Your task to perform on an android device: open a new tab in the chrome app Image 0: 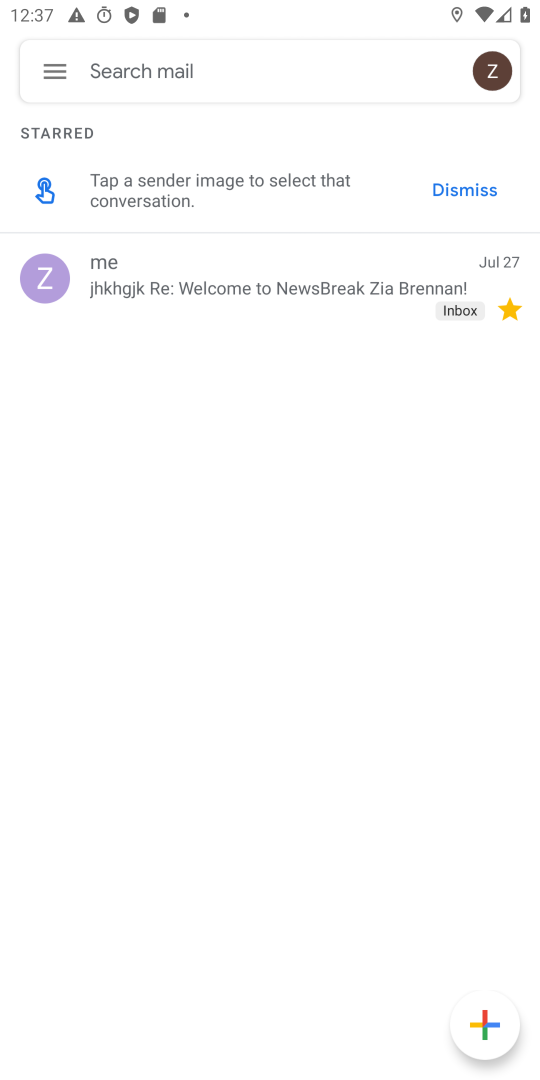
Step 0: press home button
Your task to perform on an android device: open a new tab in the chrome app Image 1: 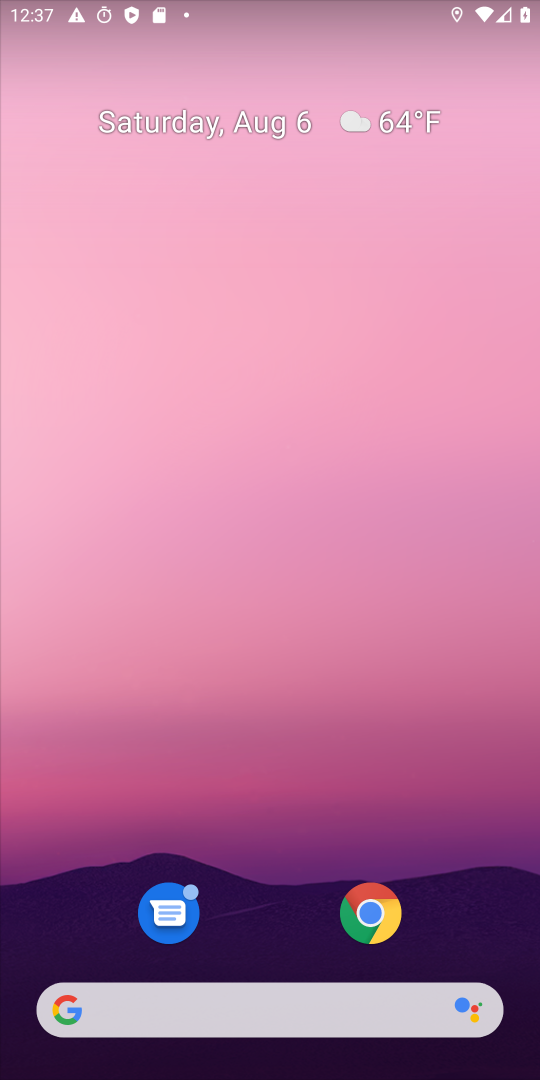
Step 1: drag from (442, 916) to (500, 224)
Your task to perform on an android device: open a new tab in the chrome app Image 2: 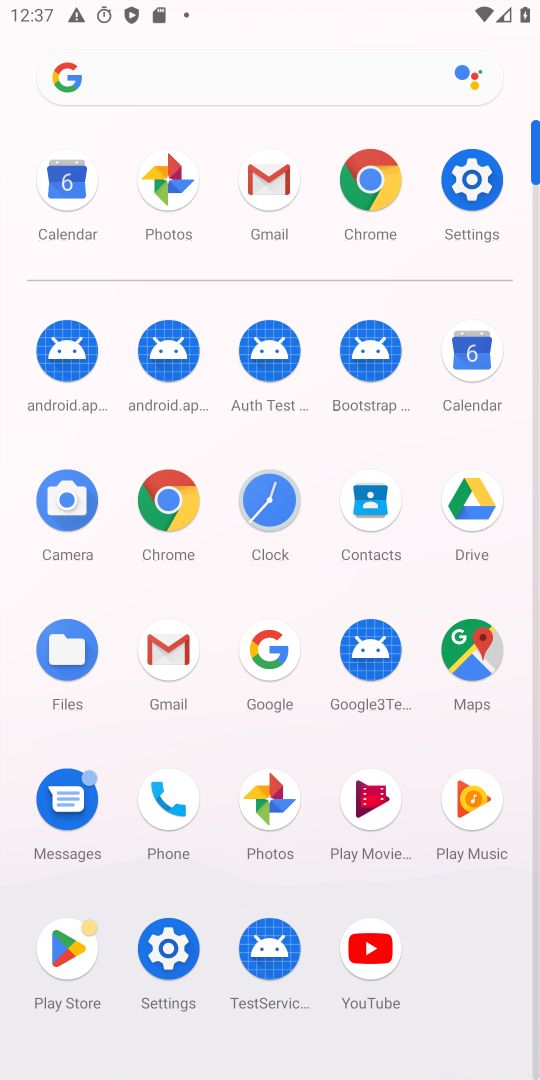
Step 2: click (159, 505)
Your task to perform on an android device: open a new tab in the chrome app Image 3: 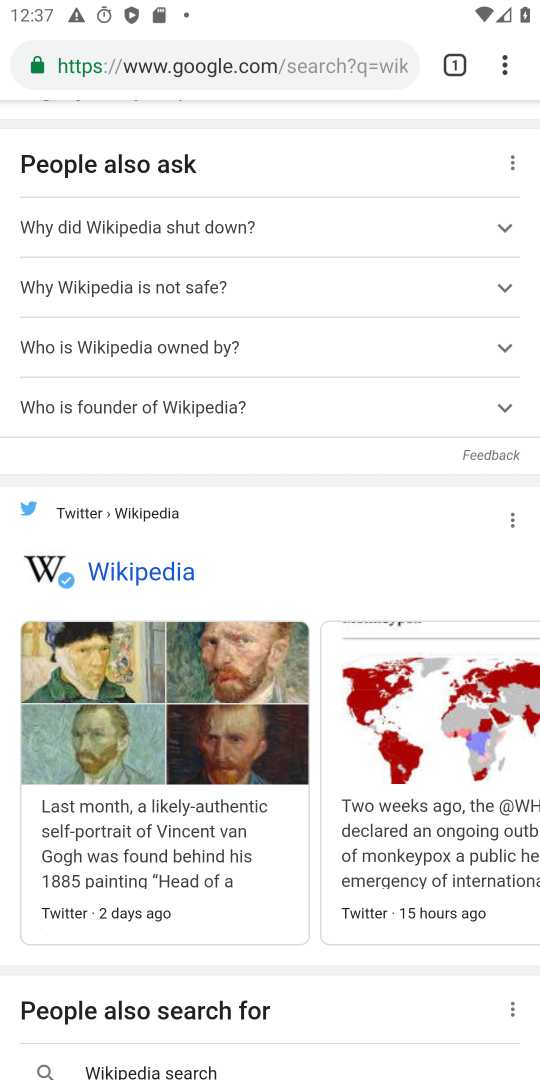
Step 3: click (500, 69)
Your task to perform on an android device: open a new tab in the chrome app Image 4: 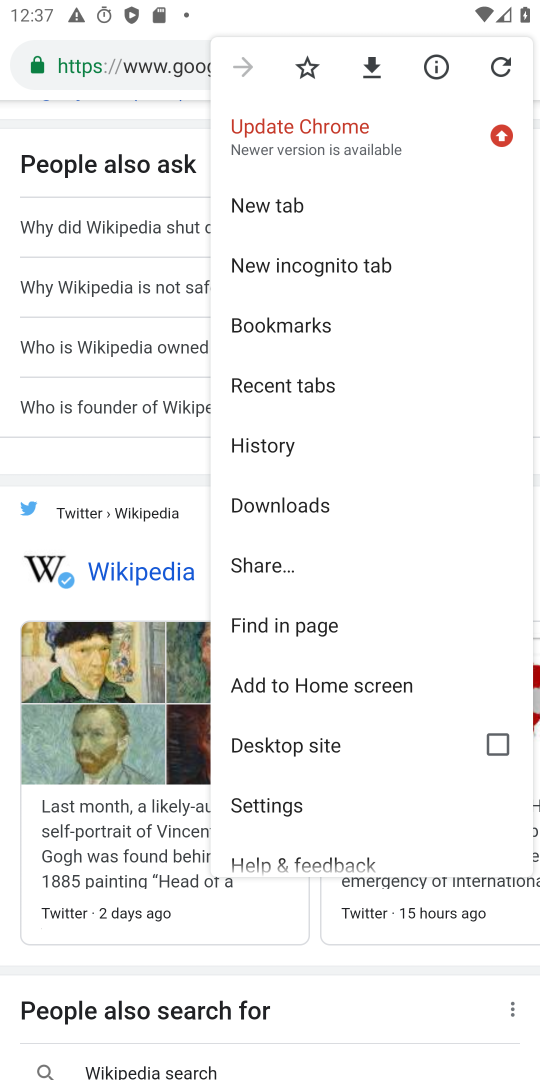
Step 4: click (318, 201)
Your task to perform on an android device: open a new tab in the chrome app Image 5: 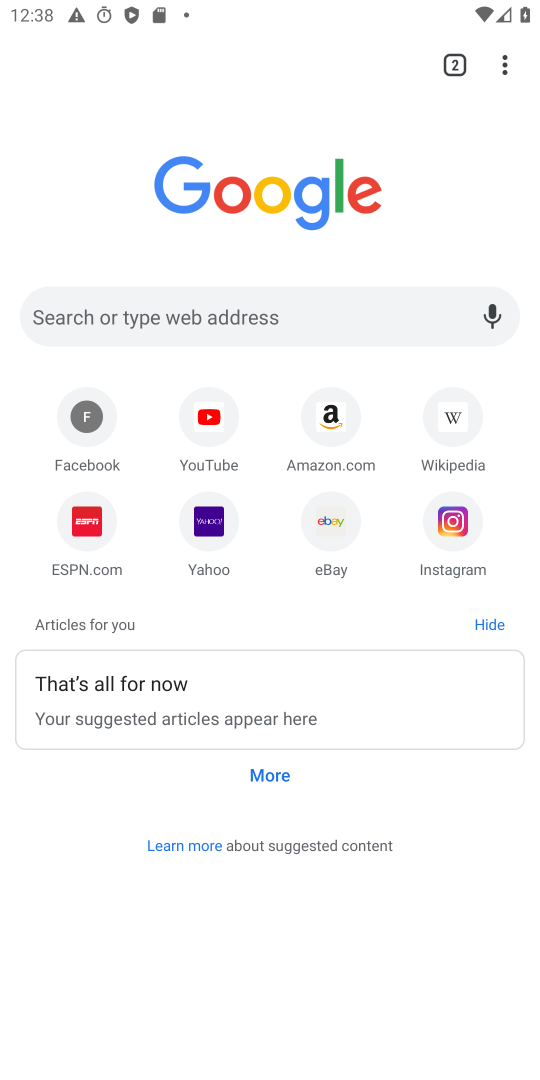
Step 5: task complete